Your task to perform on an android device: turn off picture-in-picture Image 0: 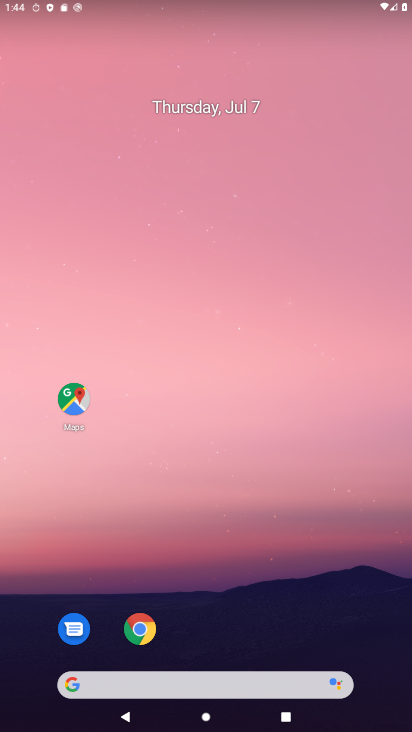
Step 0: drag from (375, 619) to (206, 234)
Your task to perform on an android device: turn off picture-in-picture Image 1: 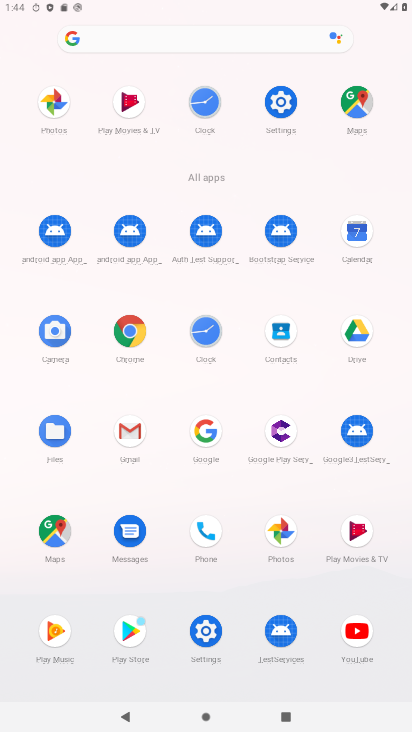
Step 1: click (145, 321)
Your task to perform on an android device: turn off picture-in-picture Image 2: 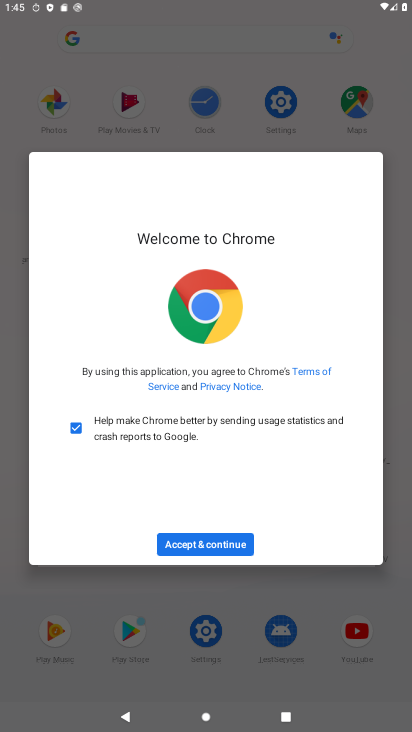
Step 2: click (171, 545)
Your task to perform on an android device: turn off picture-in-picture Image 3: 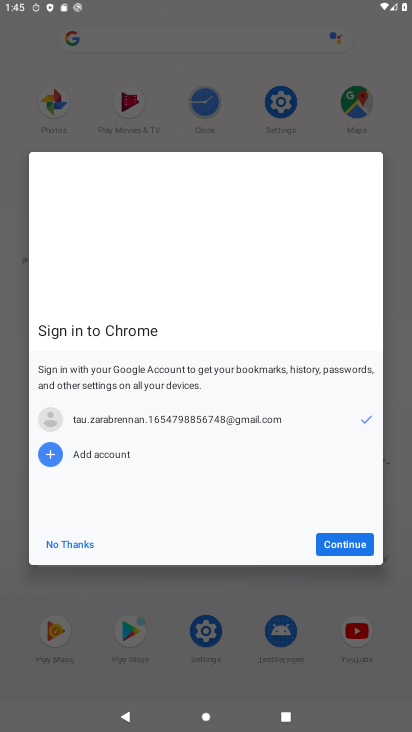
Step 3: click (171, 545)
Your task to perform on an android device: turn off picture-in-picture Image 4: 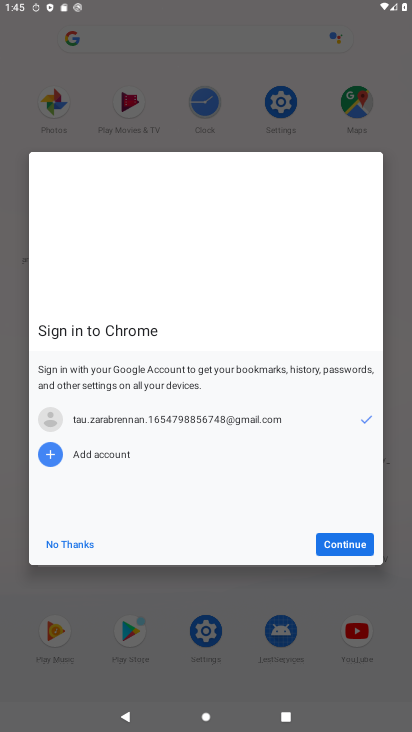
Step 4: click (369, 543)
Your task to perform on an android device: turn off picture-in-picture Image 5: 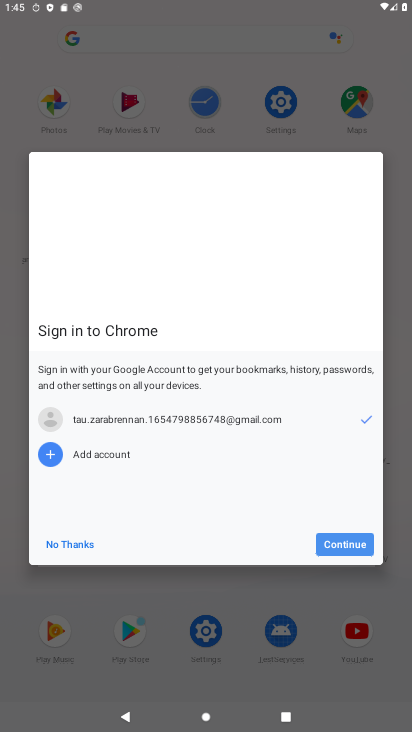
Step 5: click (369, 543)
Your task to perform on an android device: turn off picture-in-picture Image 6: 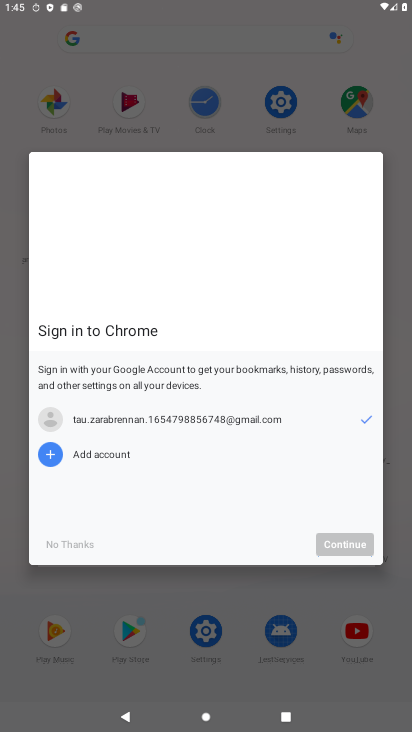
Step 6: click (369, 543)
Your task to perform on an android device: turn off picture-in-picture Image 7: 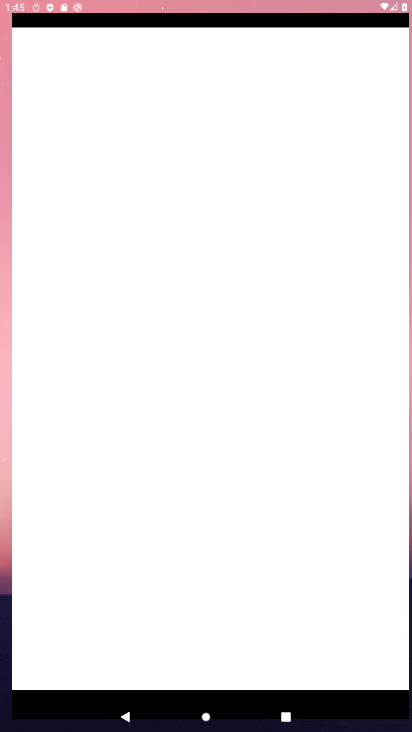
Step 7: click (369, 543)
Your task to perform on an android device: turn off picture-in-picture Image 8: 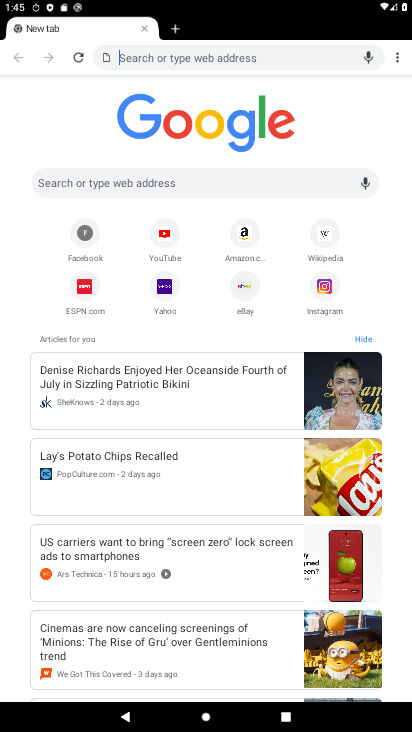
Step 8: drag from (387, 47) to (289, 268)
Your task to perform on an android device: turn off picture-in-picture Image 9: 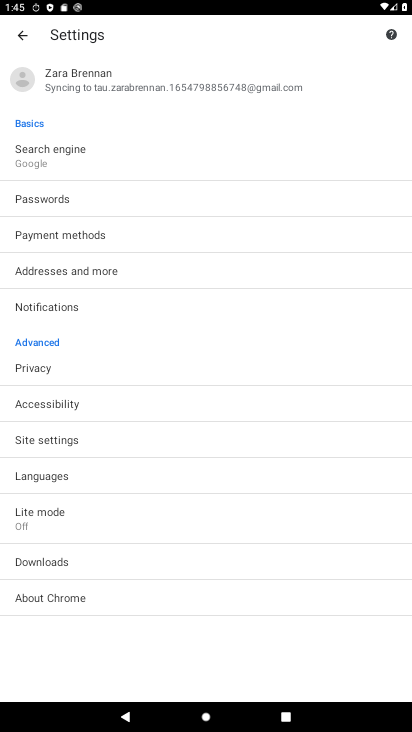
Step 9: press home button
Your task to perform on an android device: turn off picture-in-picture Image 10: 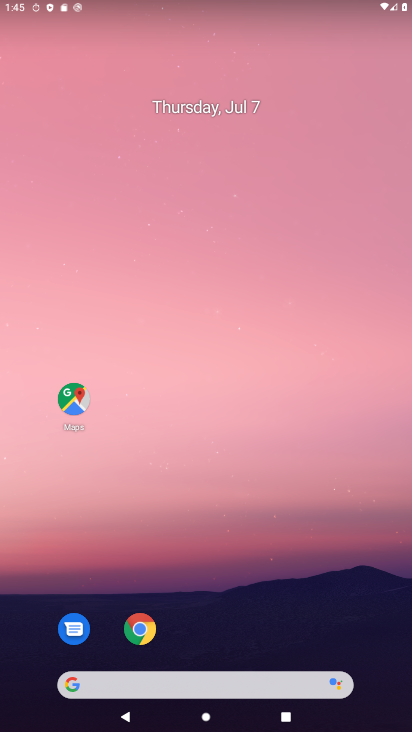
Step 10: click (143, 623)
Your task to perform on an android device: turn off picture-in-picture Image 11: 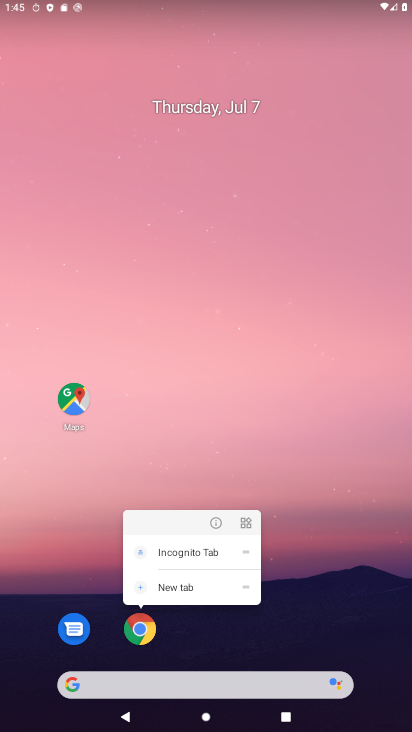
Step 11: click (214, 522)
Your task to perform on an android device: turn off picture-in-picture Image 12: 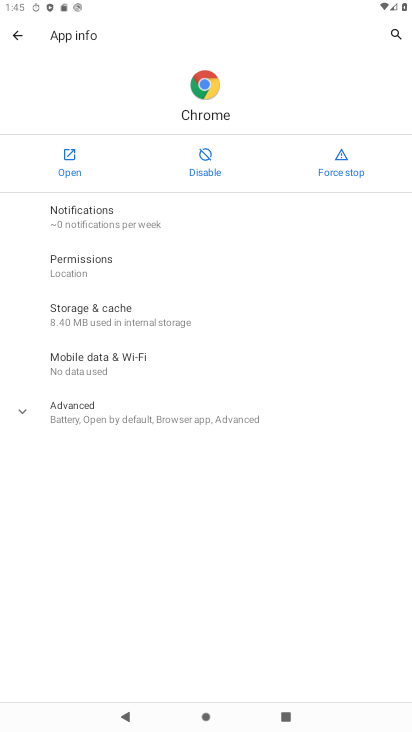
Step 12: click (163, 408)
Your task to perform on an android device: turn off picture-in-picture Image 13: 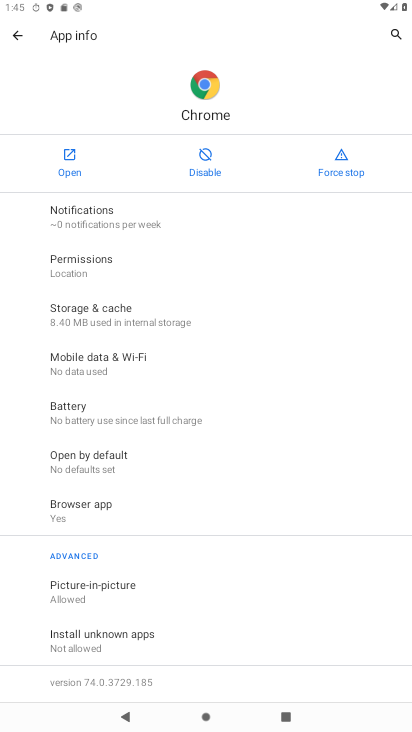
Step 13: drag from (195, 643) to (135, 293)
Your task to perform on an android device: turn off picture-in-picture Image 14: 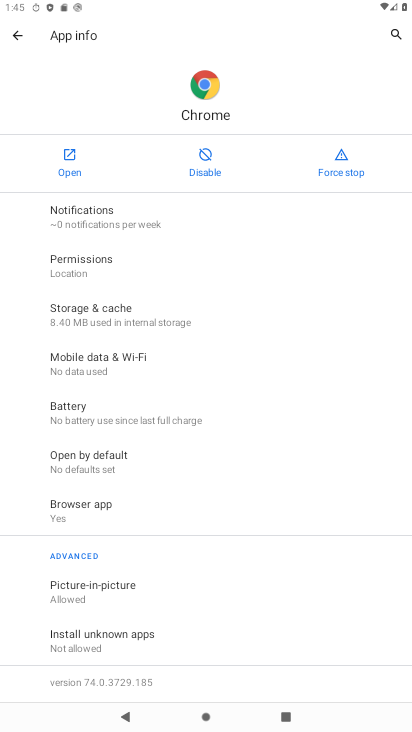
Step 14: click (76, 589)
Your task to perform on an android device: turn off picture-in-picture Image 15: 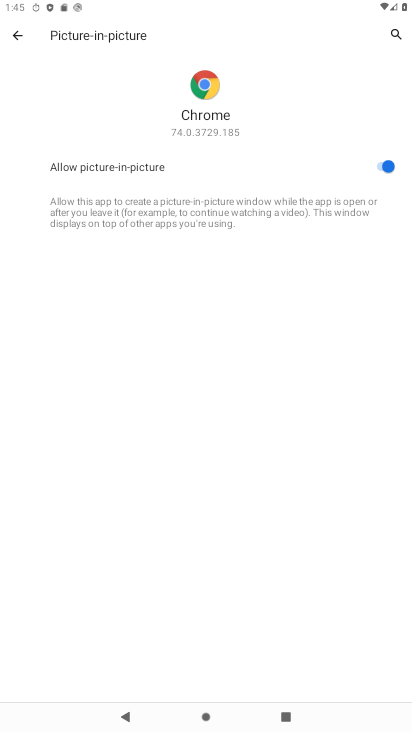
Step 15: click (324, 169)
Your task to perform on an android device: turn off picture-in-picture Image 16: 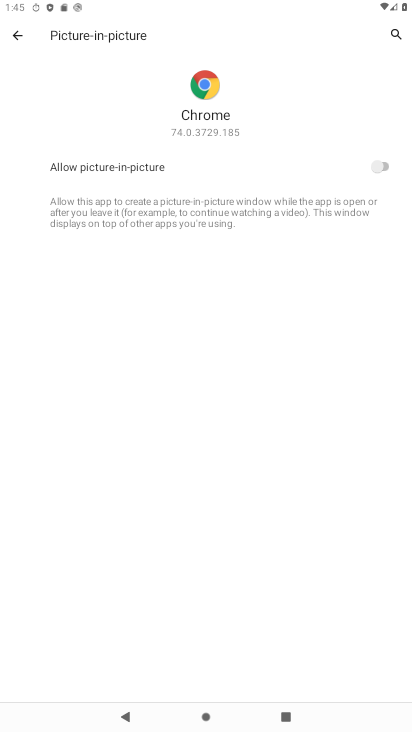
Step 16: task complete